Your task to perform on an android device: see creations saved in the google photos Image 0: 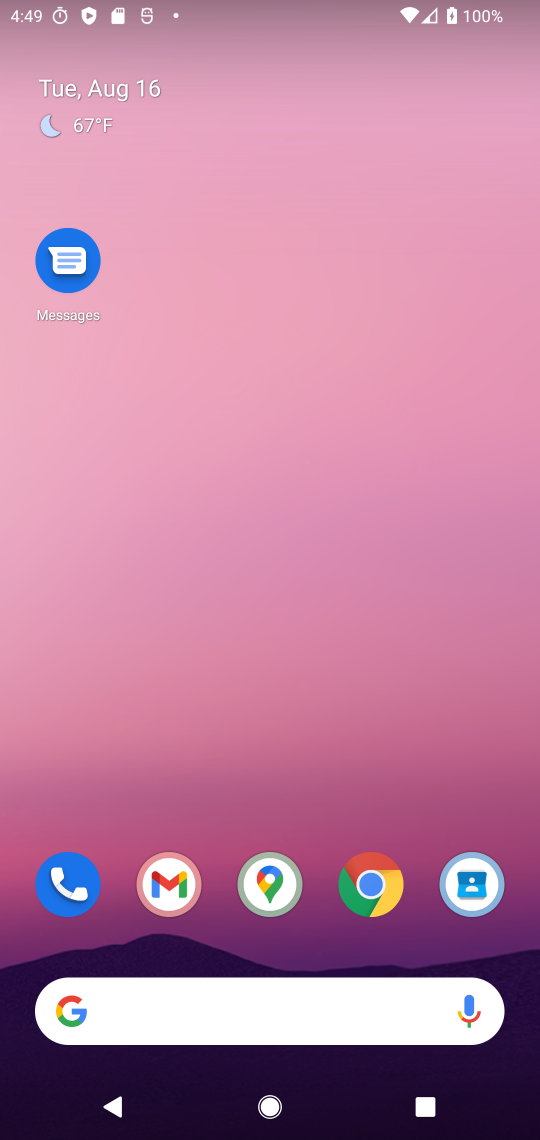
Step 0: drag from (31, 1074) to (386, 61)
Your task to perform on an android device: see creations saved in the google photos Image 1: 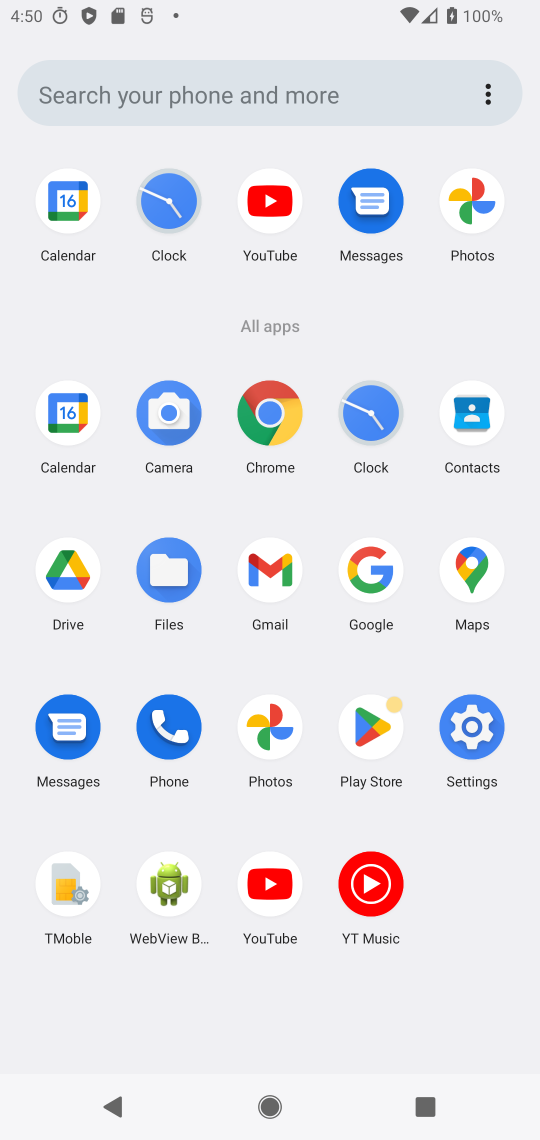
Step 1: click (284, 736)
Your task to perform on an android device: see creations saved in the google photos Image 2: 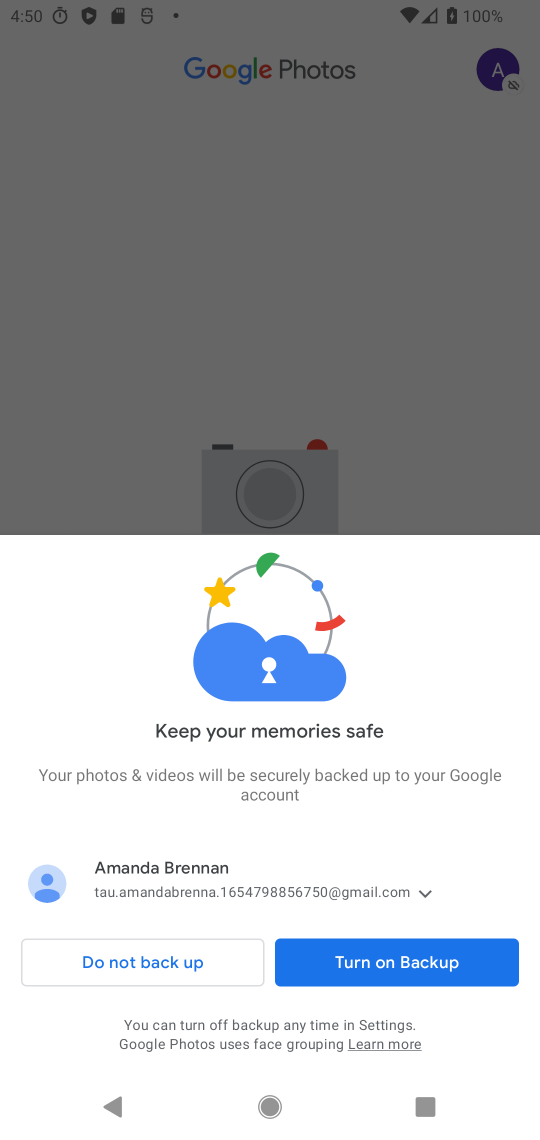
Step 2: click (132, 942)
Your task to perform on an android device: see creations saved in the google photos Image 3: 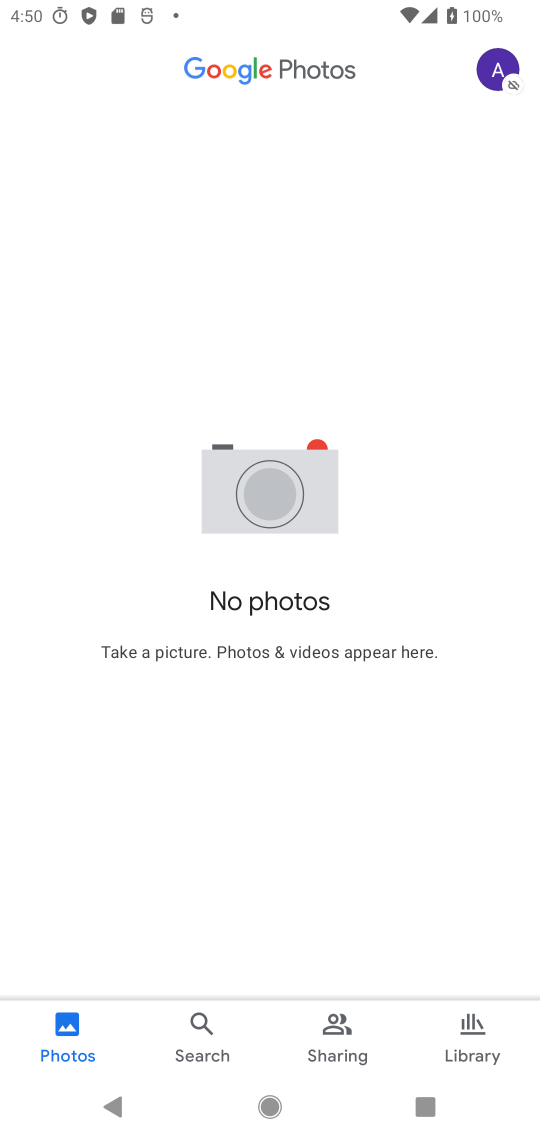
Step 3: click (510, 64)
Your task to perform on an android device: see creations saved in the google photos Image 4: 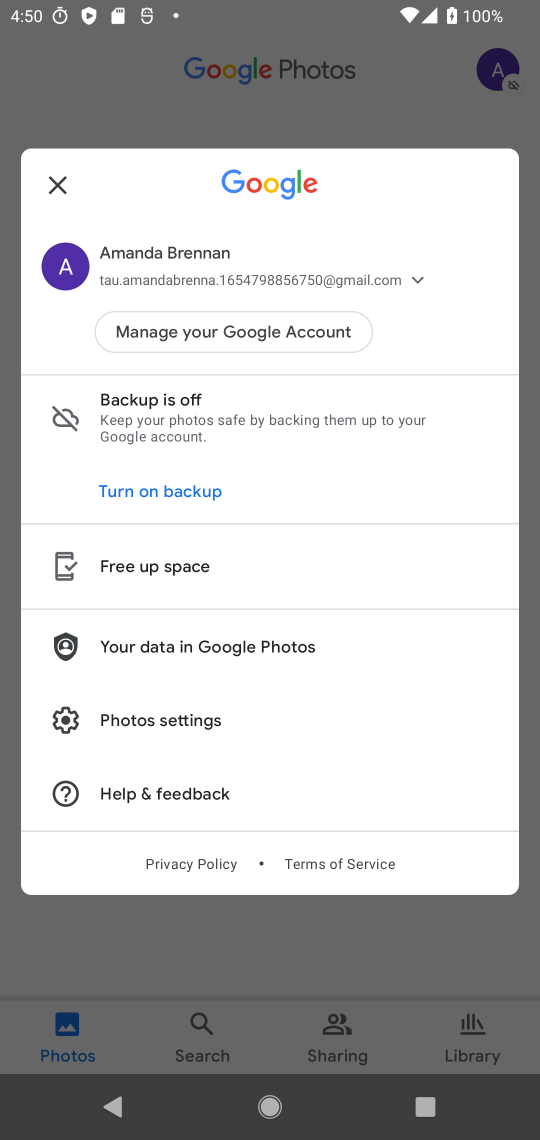
Step 4: click (45, 180)
Your task to perform on an android device: see creations saved in the google photos Image 5: 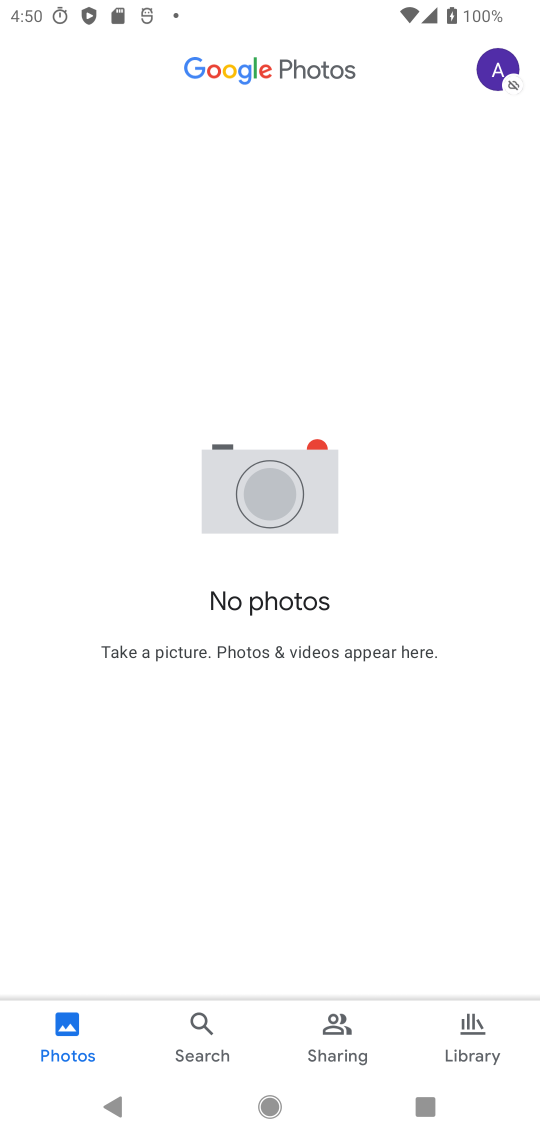
Step 5: click (341, 1028)
Your task to perform on an android device: see creations saved in the google photos Image 6: 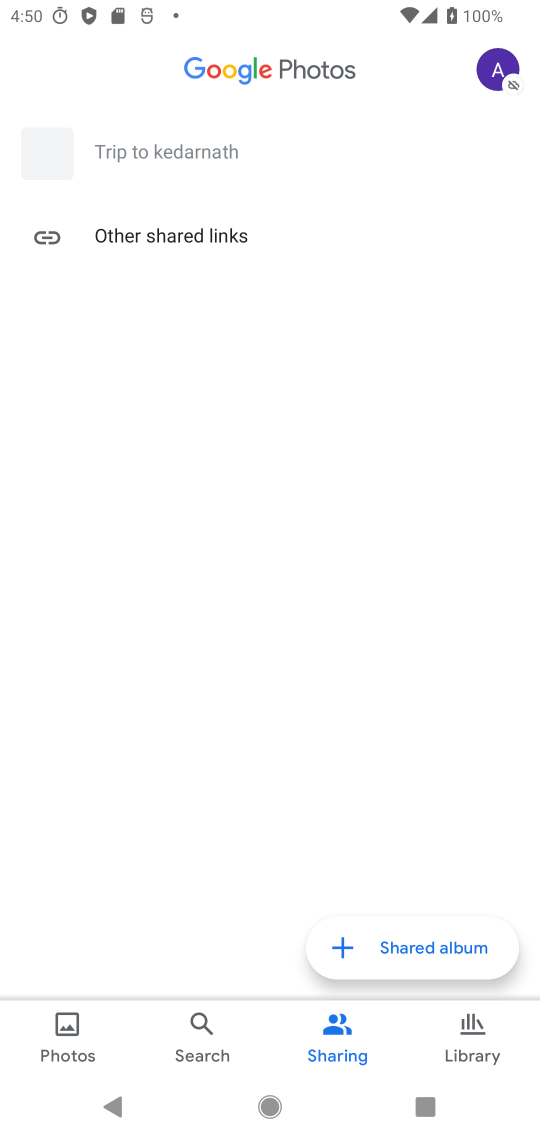
Step 6: click (467, 1025)
Your task to perform on an android device: see creations saved in the google photos Image 7: 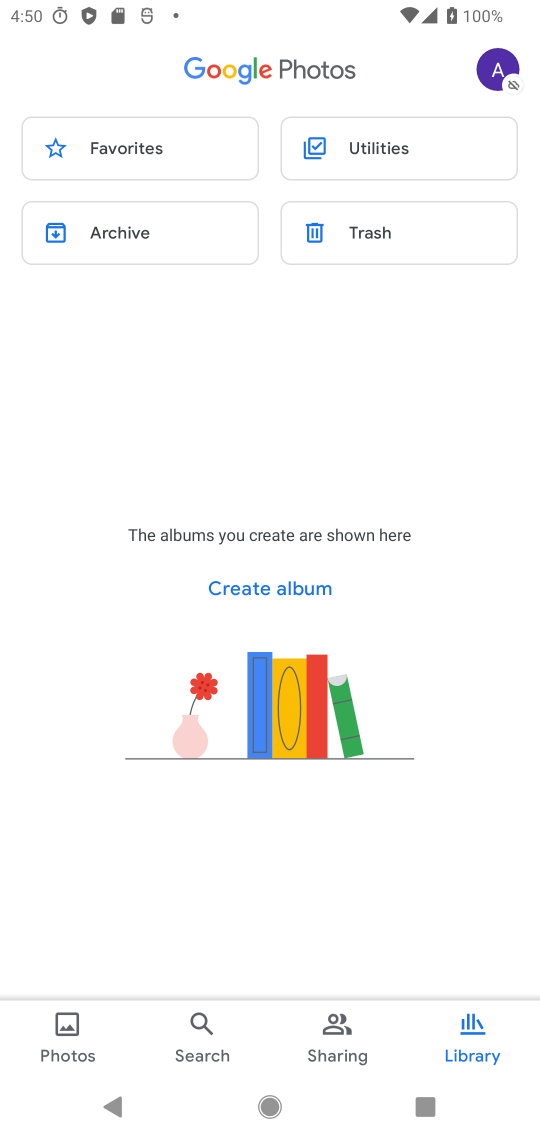
Step 7: task complete